Your task to perform on an android device: set default search engine in the chrome app Image 0: 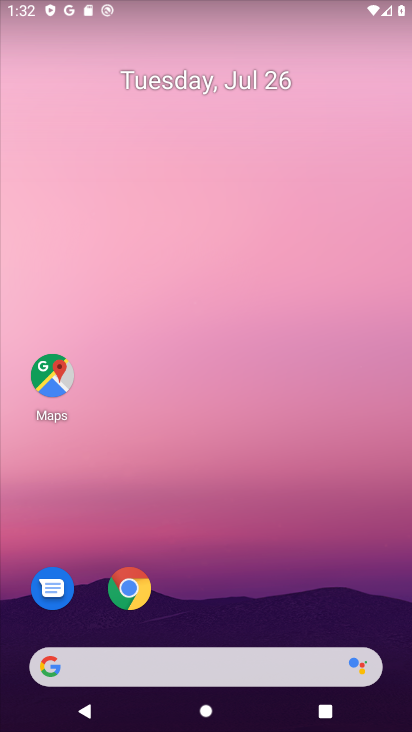
Step 0: drag from (217, 634) to (182, 125)
Your task to perform on an android device: set default search engine in the chrome app Image 1: 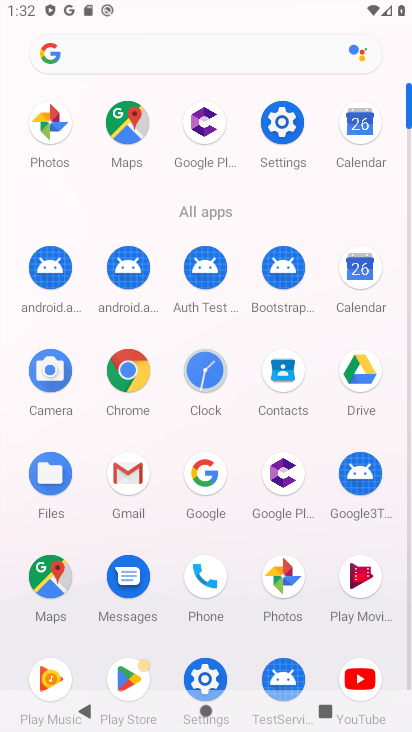
Step 1: click (133, 380)
Your task to perform on an android device: set default search engine in the chrome app Image 2: 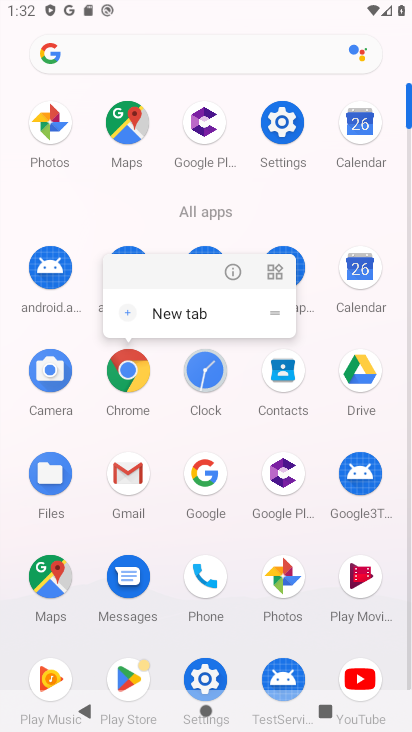
Step 2: click (133, 388)
Your task to perform on an android device: set default search engine in the chrome app Image 3: 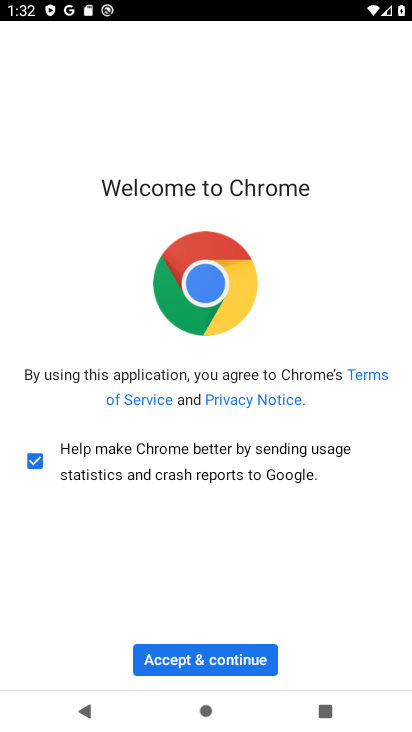
Step 3: click (268, 647)
Your task to perform on an android device: set default search engine in the chrome app Image 4: 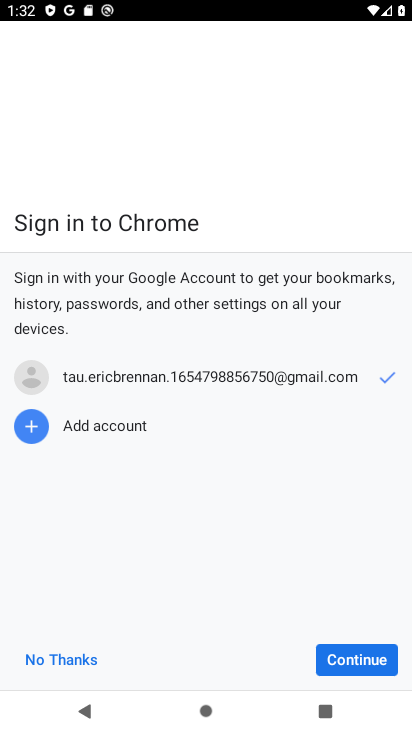
Step 4: click (362, 650)
Your task to perform on an android device: set default search engine in the chrome app Image 5: 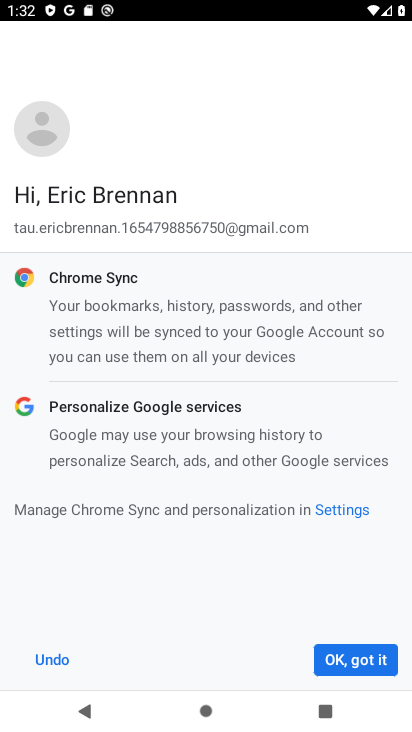
Step 5: click (366, 660)
Your task to perform on an android device: set default search engine in the chrome app Image 6: 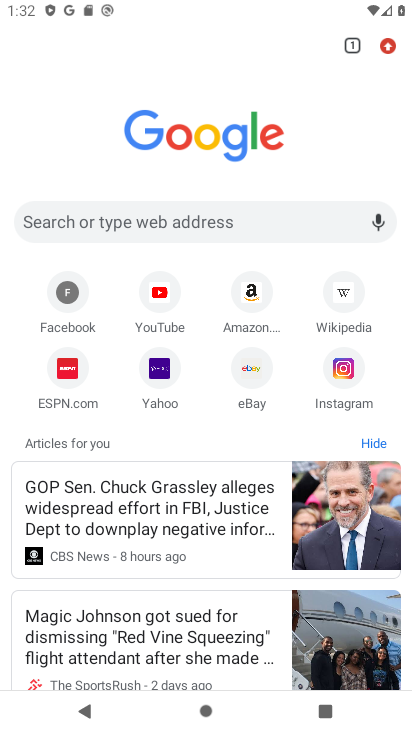
Step 6: click (385, 46)
Your task to perform on an android device: set default search engine in the chrome app Image 7: 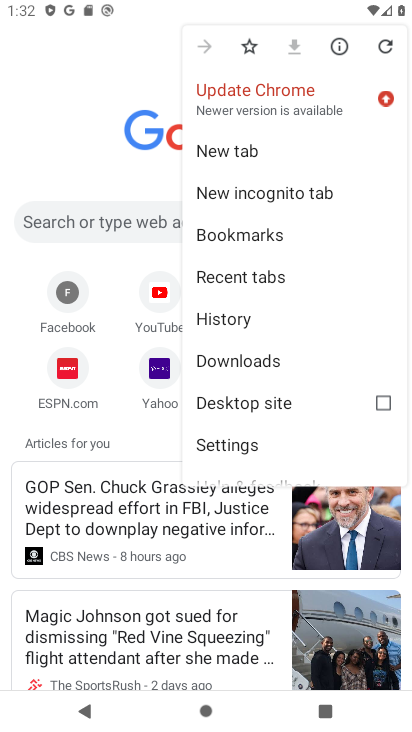
Step 7: click (240, 441)
Your task to perform on an android device: set default search engine in the chrome app Image 8: 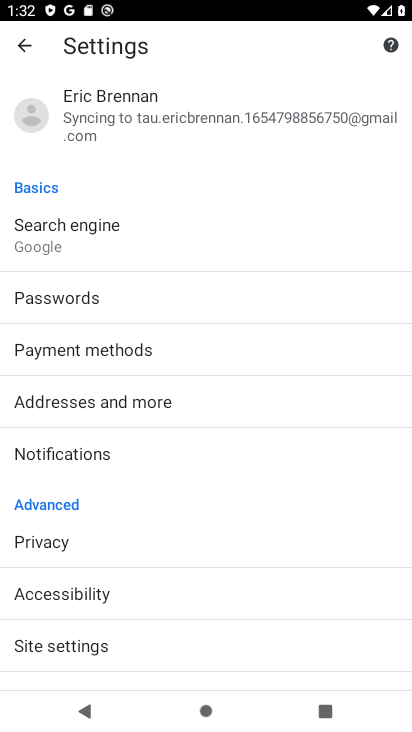
Step 8: drag from (76, 569) to (68, 116)
Your task to perform on an android device: set default search engine in the chrome app Image 9: 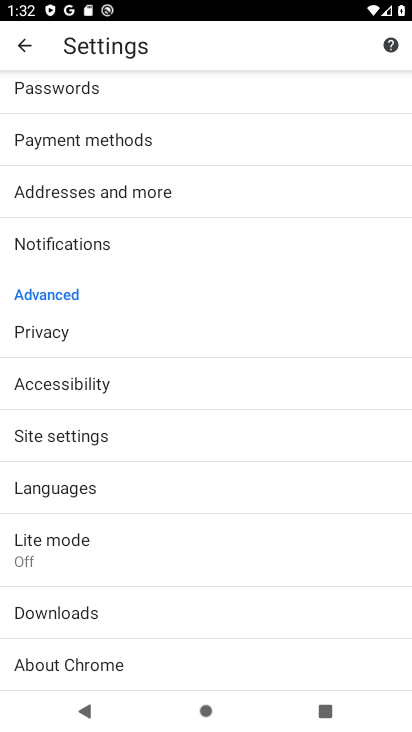
Step 9: click (43, 334)
Your task to perform on an android device: set default search engine in the chrome app Image 10: 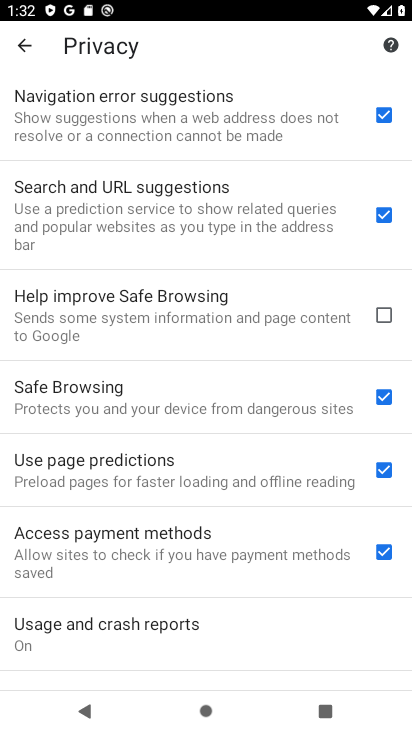
Step 10: click (34, 40)
Your task to perform on an android device: set default search engine in the chrome app Image 11: 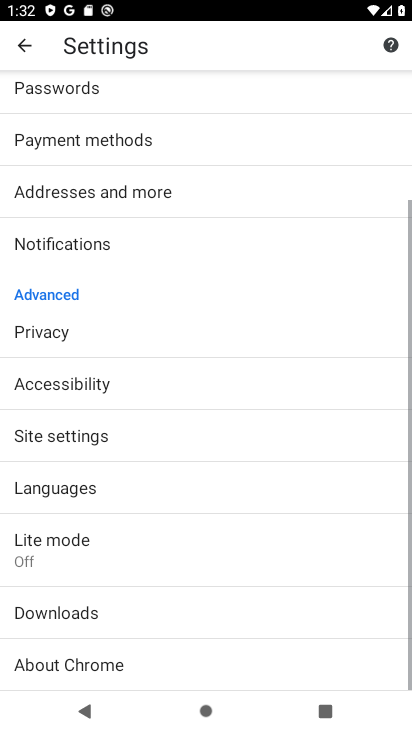
Step 11: drag from (117, 564) to (63, 102)
Your task to perform on an android device: set default search engine in the chrome app Image 12: 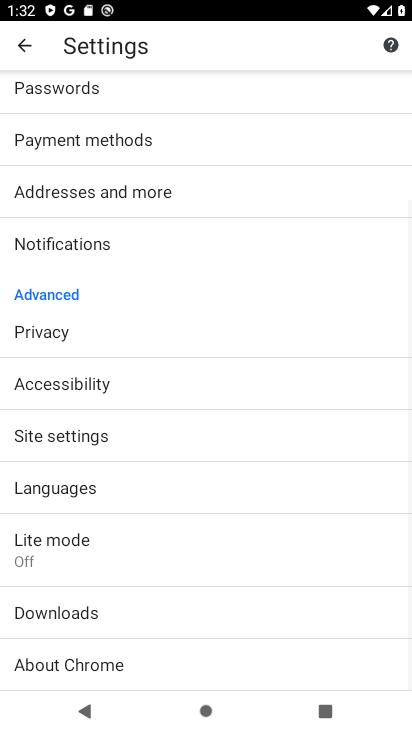
Step 12: drag from (57, 315) to (58, 687)
Your task to perform on an android device: set default search engine in the chrome app Image 13: 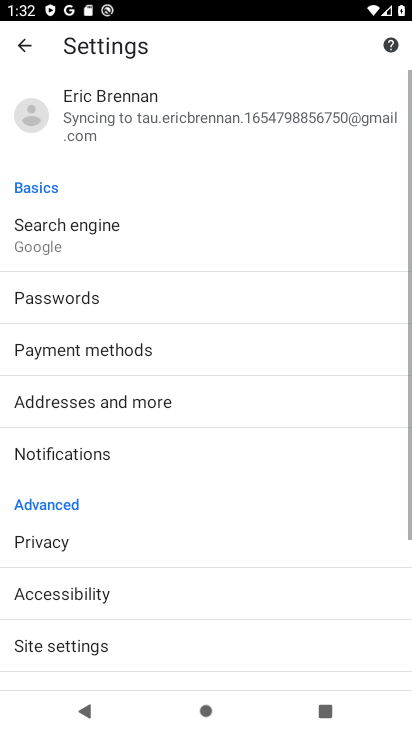
Step 13: click (73, 234)
Your task to perform on an android device: set default search engine in the chrome app Image 14: 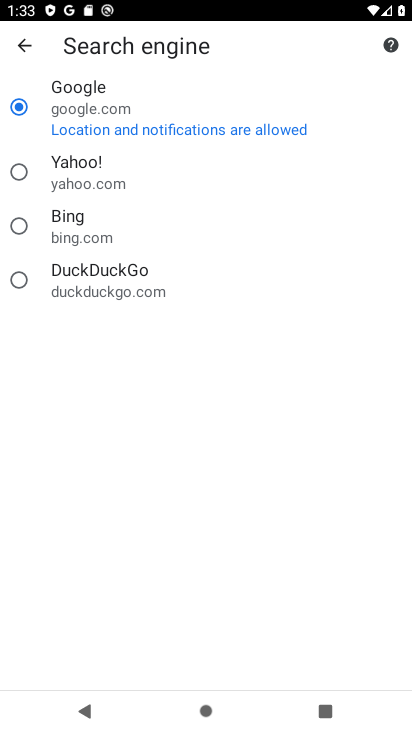
Step 14: click (36, 111)
Your task to perform on an android device: set default search engine in the chrome app Image 15: 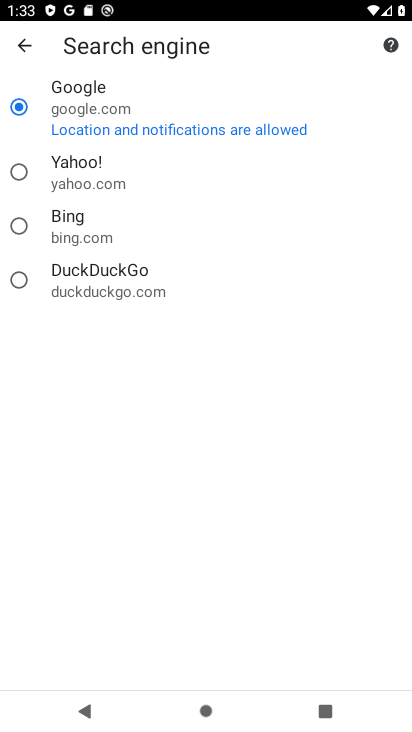
Step 15: task complete